Your task to perform on an android device: View the shopping cart on ebay. Search for "usb-a" on ebay, select the first entry, add it to the cart, then select checkout. Image 0: 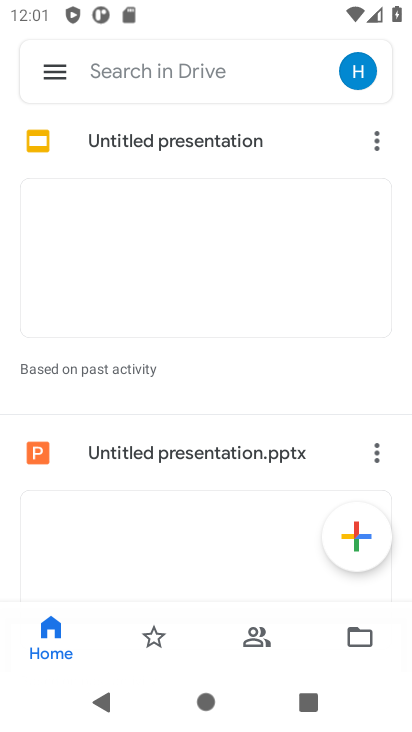
Step 0: press home button
Your task to perform on an android device: View the shopping cart on ebay. Search for "usb-a" on ebay, select the first entry, add it to the cart, then select checkout. Image 1: 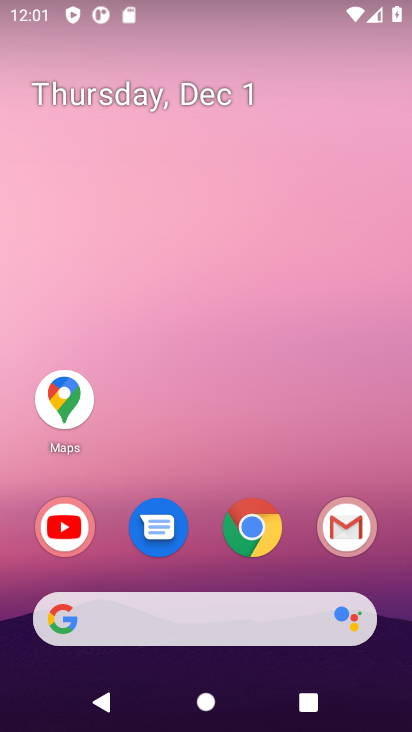
Step 1: click (251, 535)
Your task to perform on an android device: View the shopping cart on ebay. Search for "usb-a" on ebay, select the first entry, add it to the cart, then select checkout. Image 2: 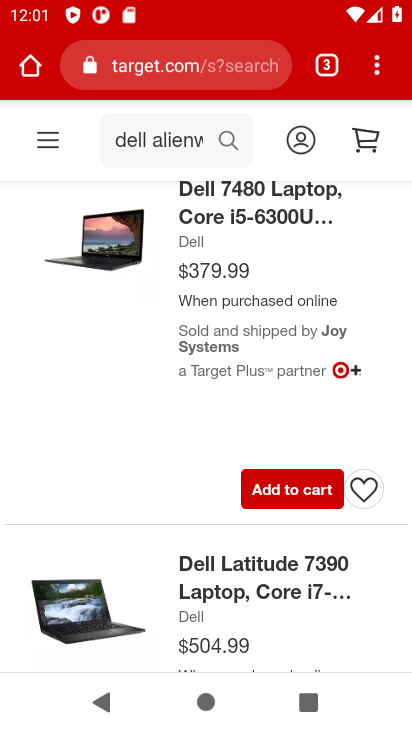
Step 2: click (151, 57)
Your task to perform on an android device: View the shopping cart on ebay. Search for "usb-a" on ebay, select the first entry, add it to the cart, then select checkout. Image 3: 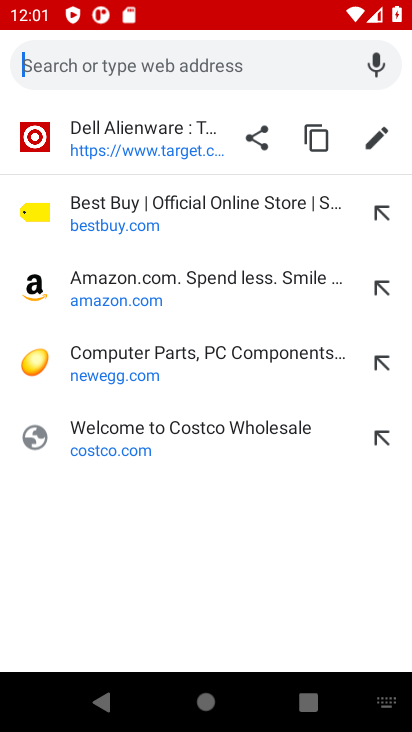
Step 3: type "ebay.com"
Your task to perform on an android device: View the shopping cart on ebay. Search for "usb-a" on ebay, select the first entry, add it to the cart, then select checkout. Image 4: 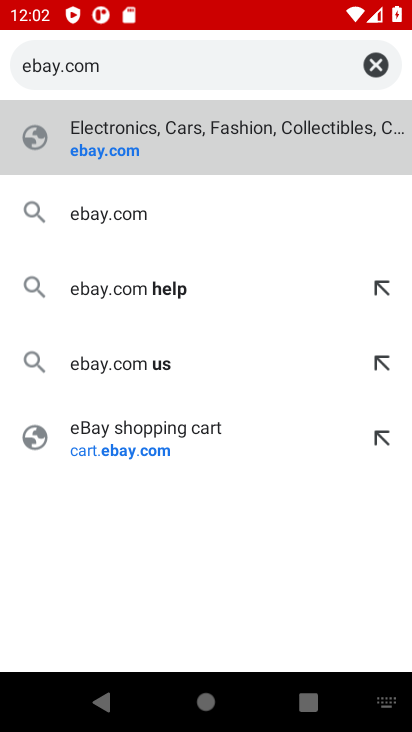
Step 4: click (108, 148)
Your task to perform on an android device: View the shopping cart on ebay. Search for "usb-a" on ebay, select the first entry, add it to the cart, then select checkout. Image 5: 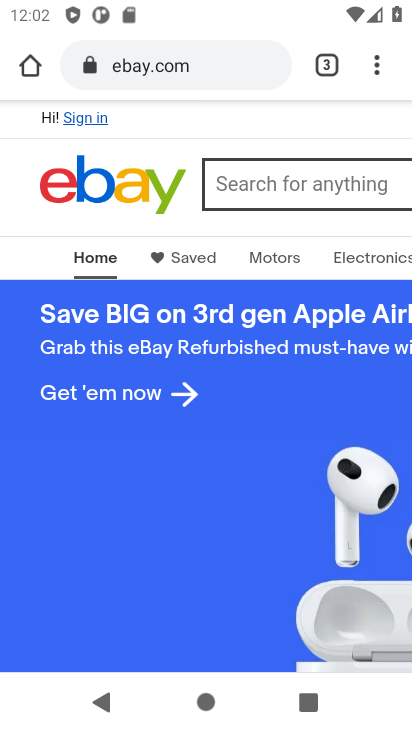
Step 5: drag from (306, 124) to (13, 136)
Your task to perform on an android device: View the shopping cart on ebay. Search for "usb-a" on ebay, select the first entry, add it to the cart, then select checkout. Image 6: 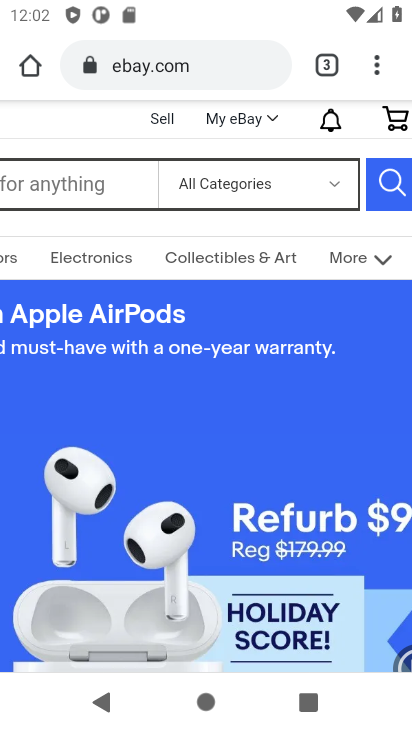
Step 6: click (395, 123)
Your task to perform on an android device: View the shopping cart on ebay. Search for "usb-a" on ebay, select the first entry, add it to the cart, then select checkout. Image 7: 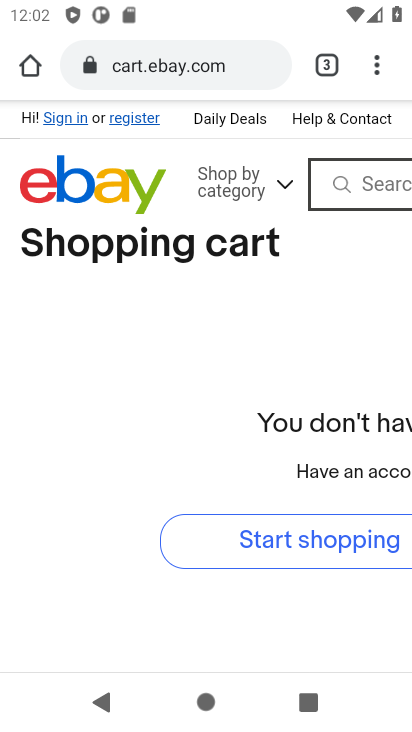
Step 7: drag from (300, 343) to (0, 468)
Your task to perform on an android device: View the shopping cart on ebay. Search for "usb-a" on ebay, select the first entry, add it to the cart, then select checkout. Image 8: 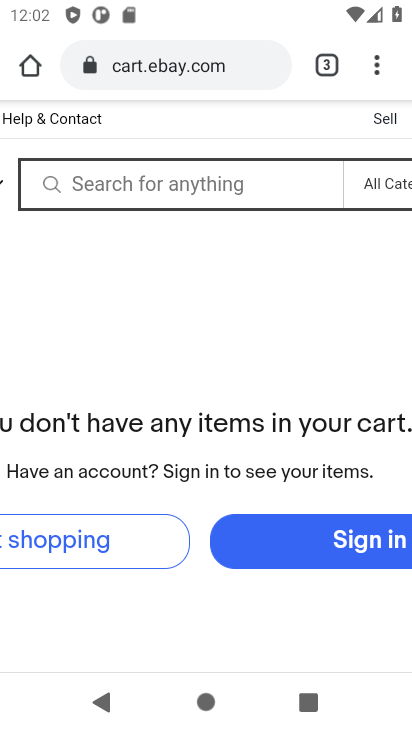
Step 8: click (97, 184)
Your task to perform on an android device: View the shopping cart on ebay. Search for "usb-a" on ebay, select the first entry, add it to the cart, then select checkout. Image 9: 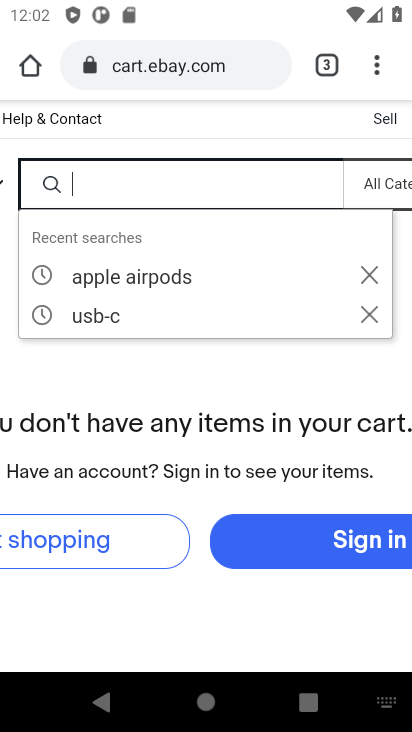
Step 9: type "usb-a"
Your task to perform on an android device: View the shopping cart on ebay. Search for "usb-a" on ebay, select the first entry, add it to the cart, then select checkout. Image 10: 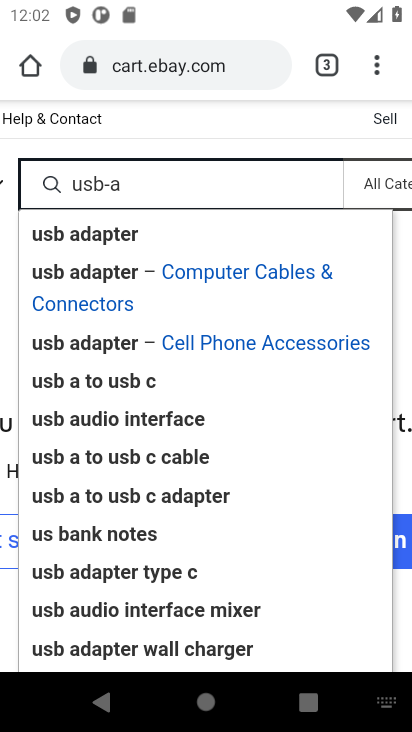
Step 10: drag from (348, 141) to (18, 150)
Your task to perform on an android device: View the shopping cart on ebay. Search for "usb-a" on ebay, select the first entry, add it to the cart, then select checkout. Image 11: 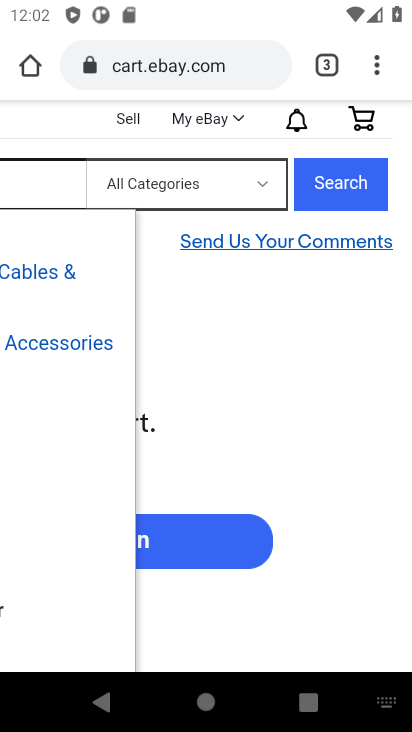
Step 11: click (337, 175)
Your task to perform on an android device: View the shopping cart on ebay. Search for "usb-a" on ebay, select the first entry, add it to the cart, then select checkout. Image 12: 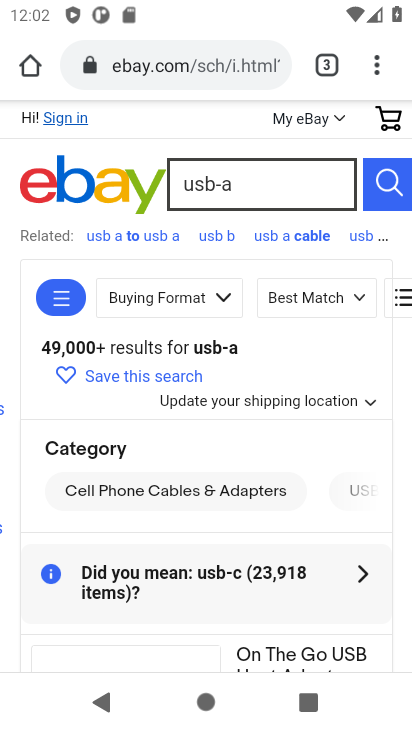
Step 12: drag from (189, 543) to (165, 287)
Your task to perform on an android device: View the shopping cart on ebay. Search for "usb-a" on ebay, select the first entry, add it to the cart, then select checkout. Image 13: 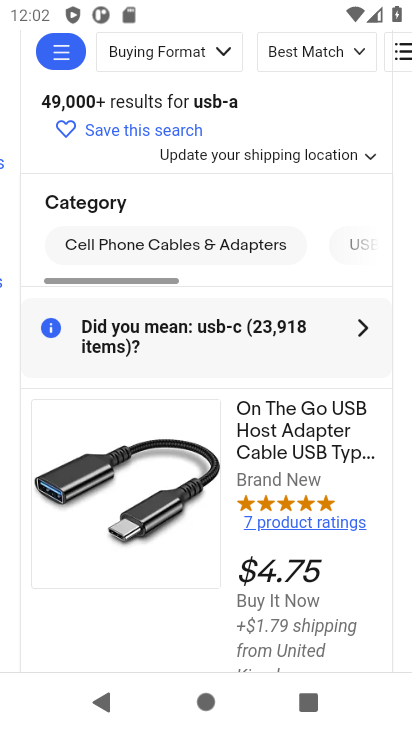
Step 13: drag from (129, 556) to (105, 407)
Your task to perform on an android device: View the shopping cart on ebay. Search for "usb-a" on ebay, select the first entry, add it to the cart, then select checkout. Image 14: 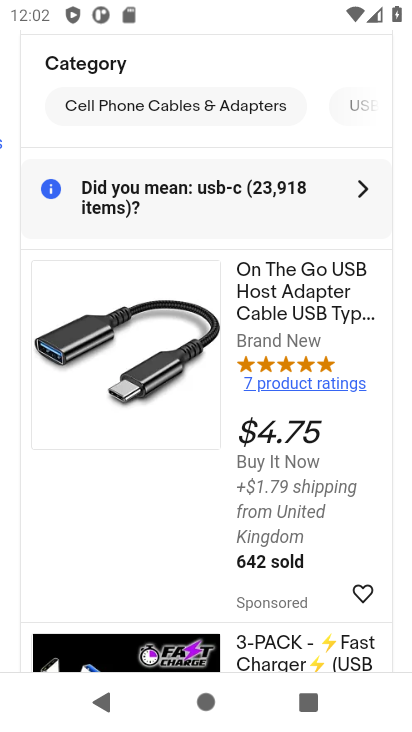
Step 14: click (271, 321)
Your task to perform on an android device: View the shopping cart on ebay. Search for "usb-a" on ebay, select the first entry, add it to the cart, then select checkout. Image 15: 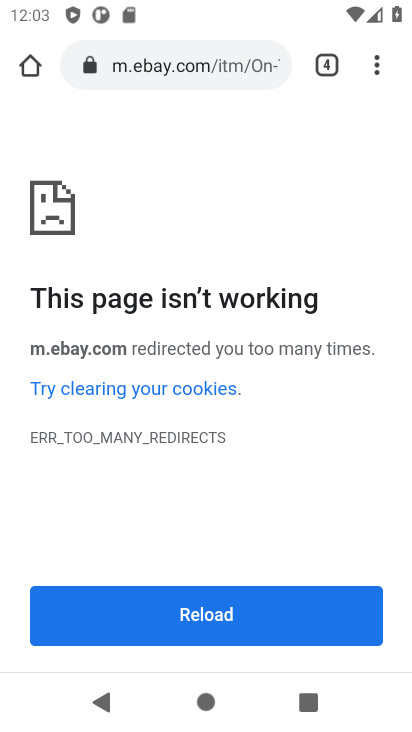
Step 15: task complete